Your task to perform on an android device: set the timer Image 0: 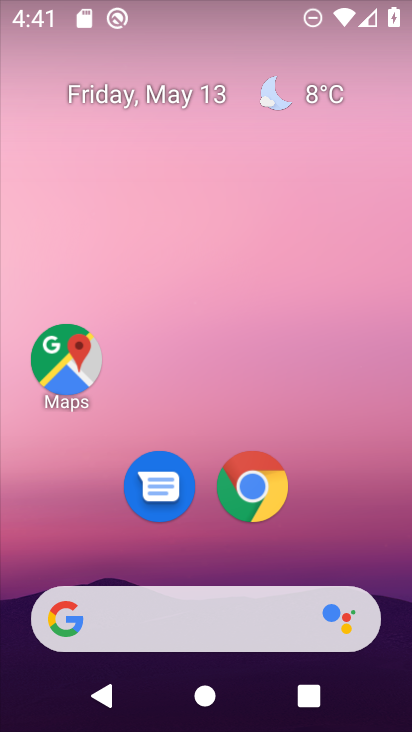
Step 0: drag from (331, 560) to (314, 162)
Your task to perform on an android device: set the timer Image 1: 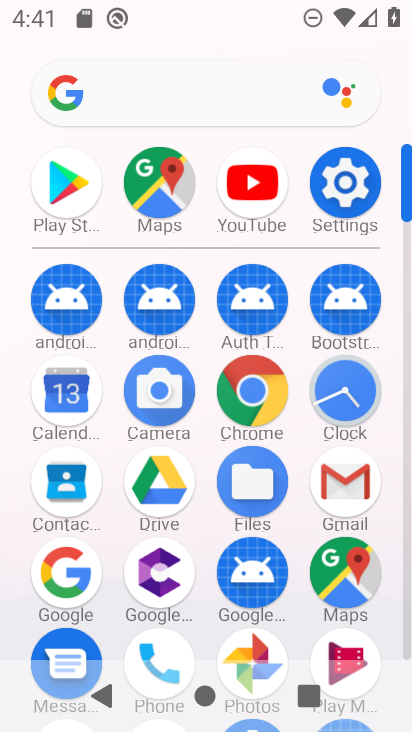
Step 1: click (346, 380)
Your task to perform on an android device: set the timer Image 2: 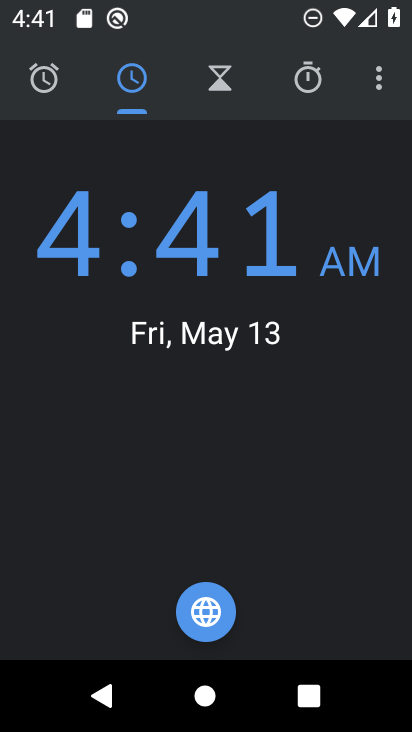
Step 2: click (295, 92)
Your task to perform on an android device: set the timer Image 3: 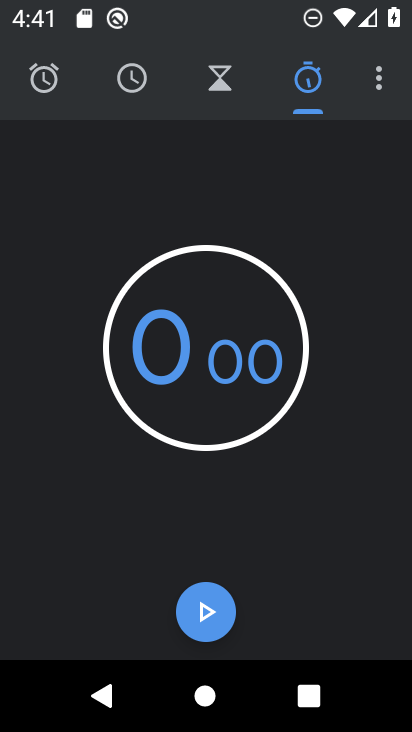
Step 3: click (252, 87)
Your task to perform on an android device: set the timer Image 4: 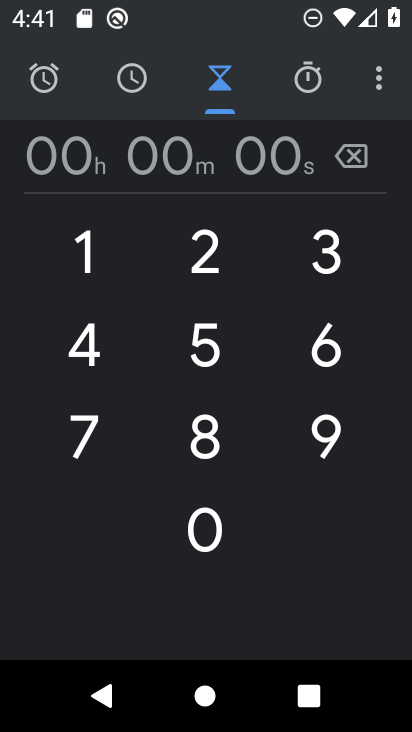
Step 4: task complete